Your task to perform on an android device: set the timer Image 0: 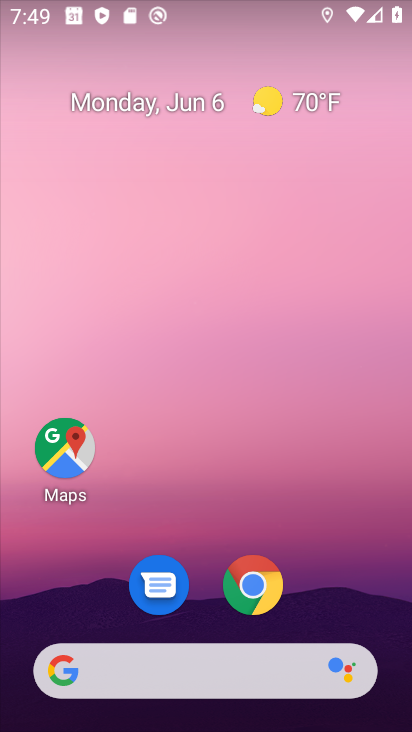
Step 0: drag from (268, 492) to (289, 24)
Your task to perform on an android device: set the timer Image 1: 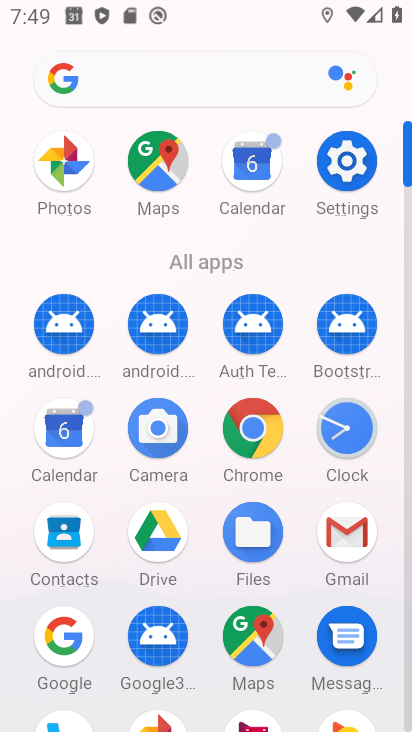
Step 1: click (347, 433)
Your task to perform on an android device: set the timer Image 2: 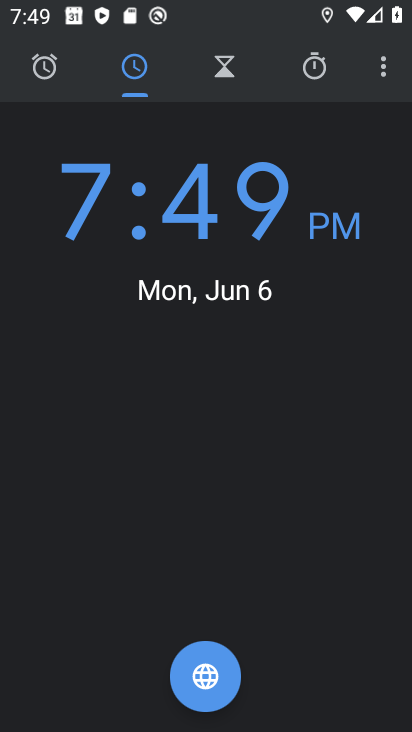
Step 2: click (233, 65)
Your task to perform on an android device: set the timer Image 3: 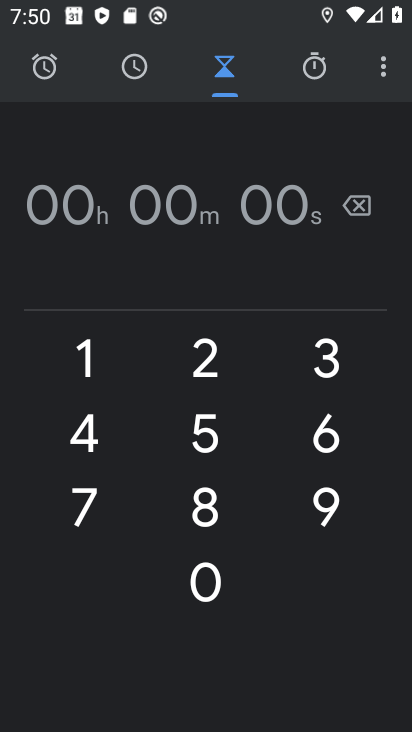
Step 3: task complete